Your task to perform on an android device: check google app version Image 0: 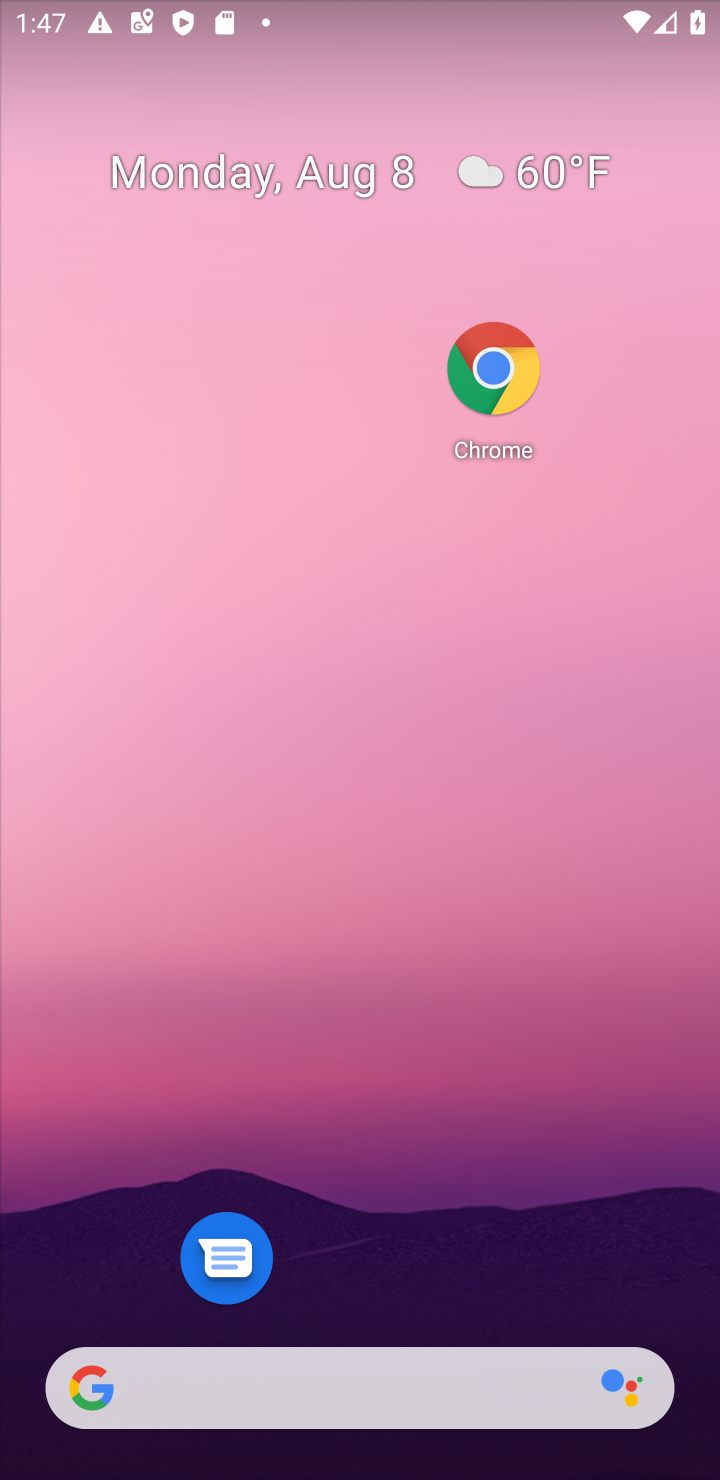
Step 0: drag from (516, 1313) to (432, 0)
Your task to perform on an android device: check google app version Image 1: 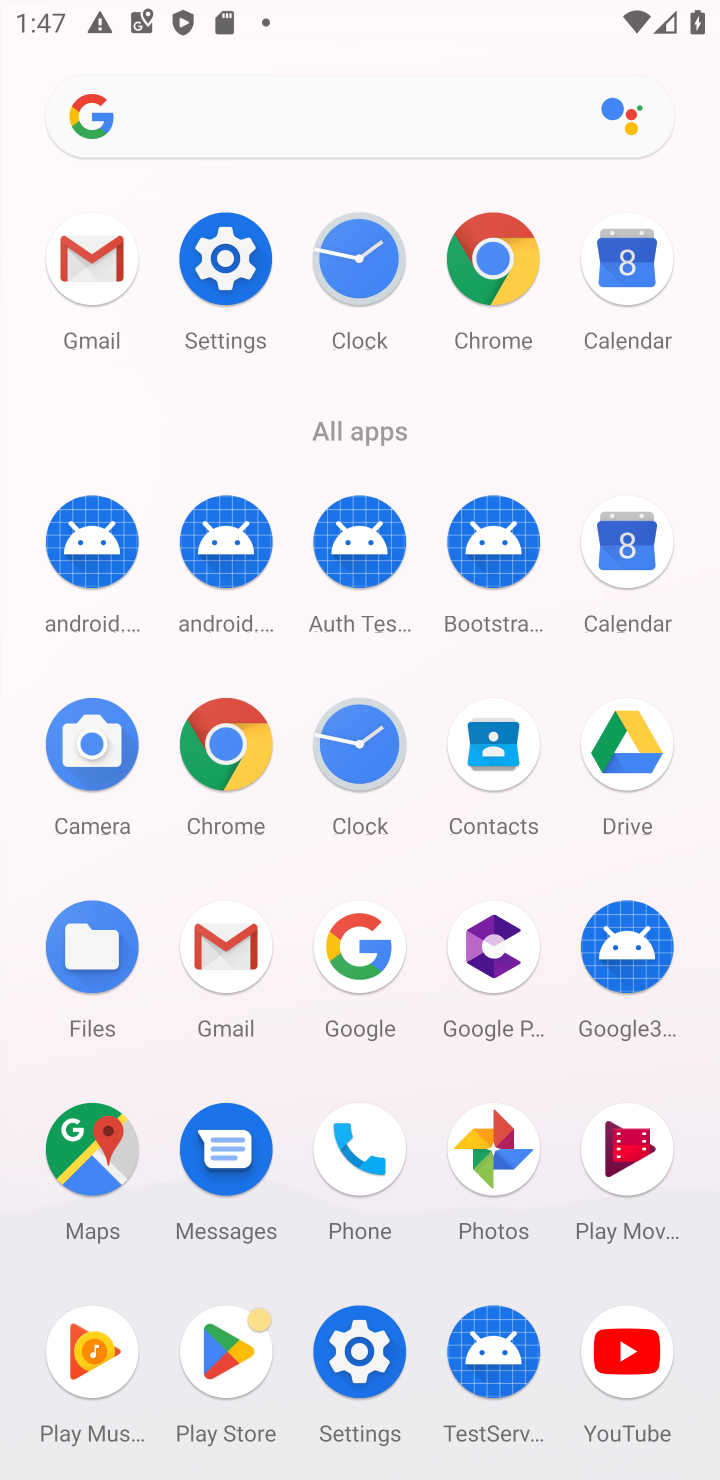
Step 1: click (375, 978)
Your task to perform on an android device: check google app version Image 2: 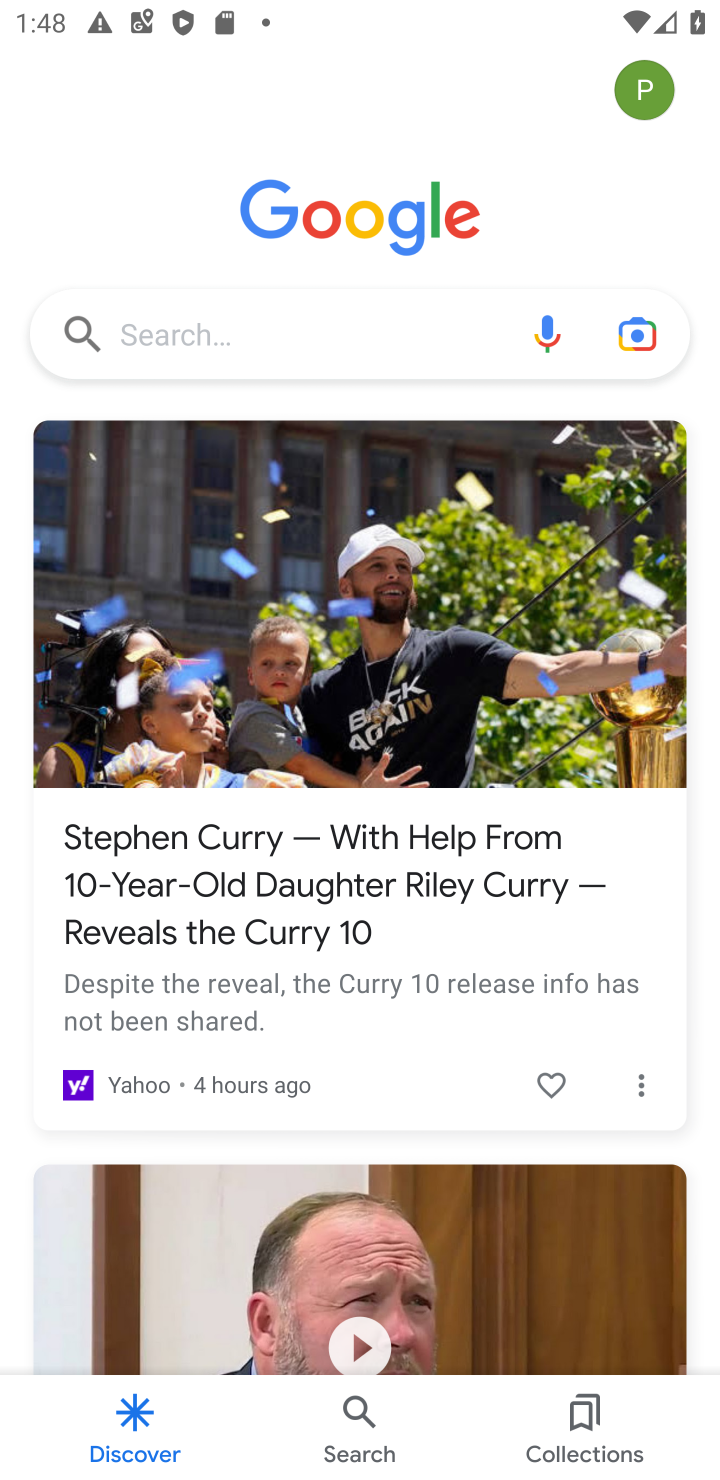
Step 2: click (654, 96)
Your task to perform on an android device: check google app version Image 3: 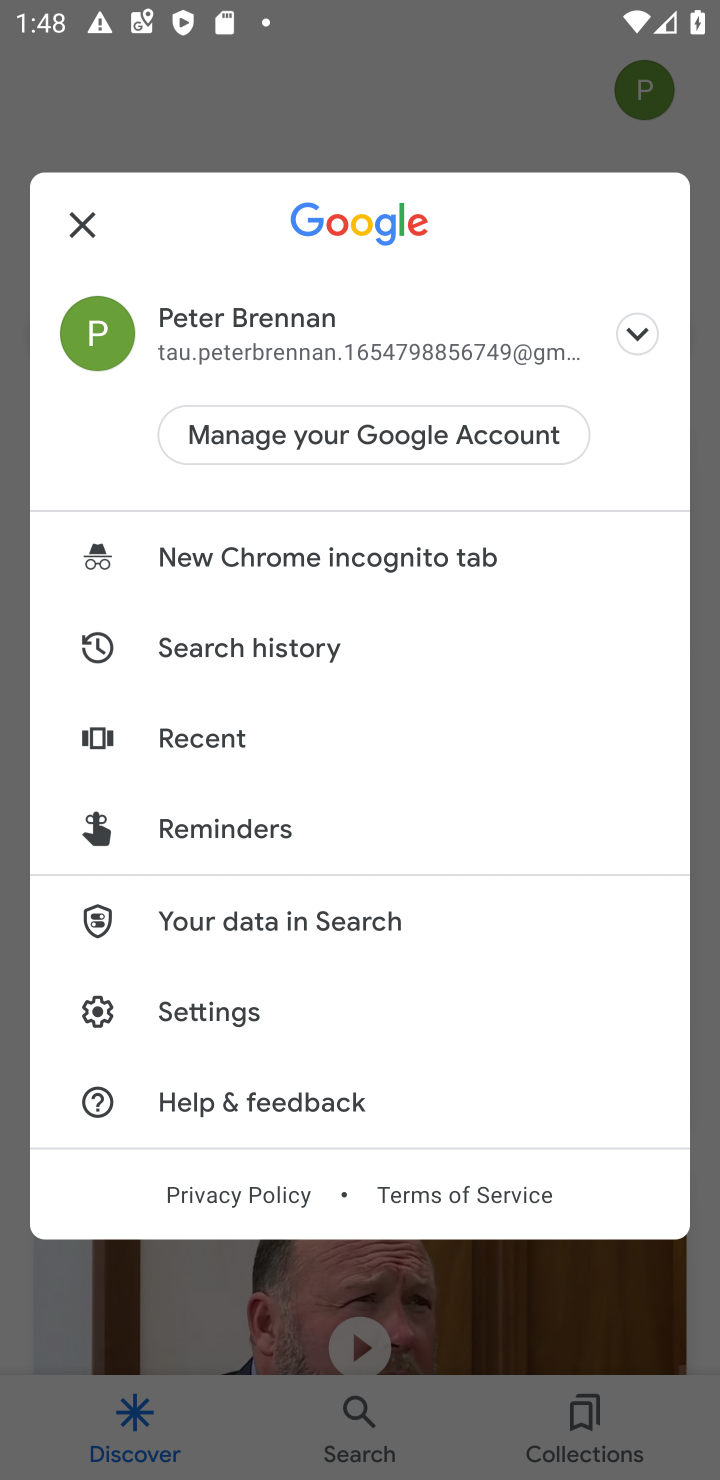
Step 3: click (230, 1020)
Your task to perform on an android device: check google app version Image 4: 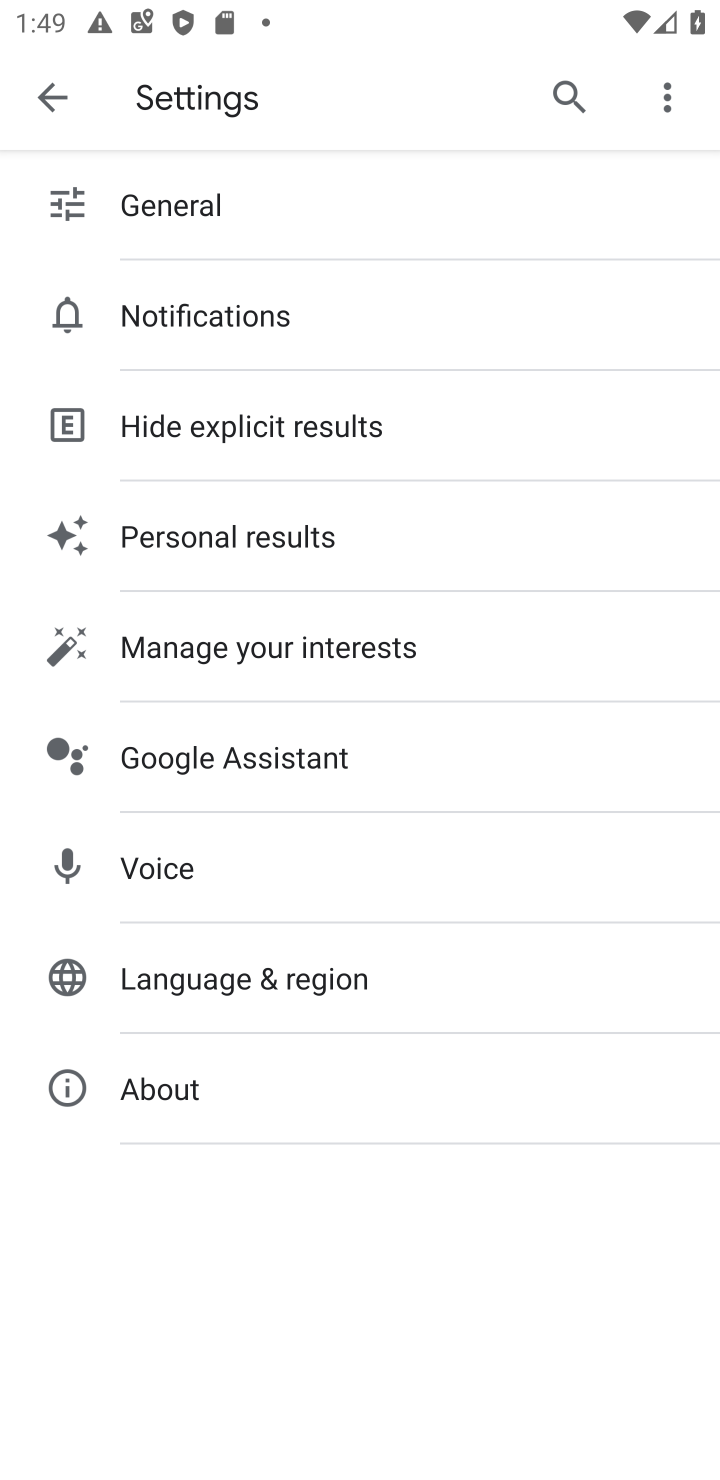
Step 4: click (367, 1082)
Your task to perform on an android device: check google app version Image 5: 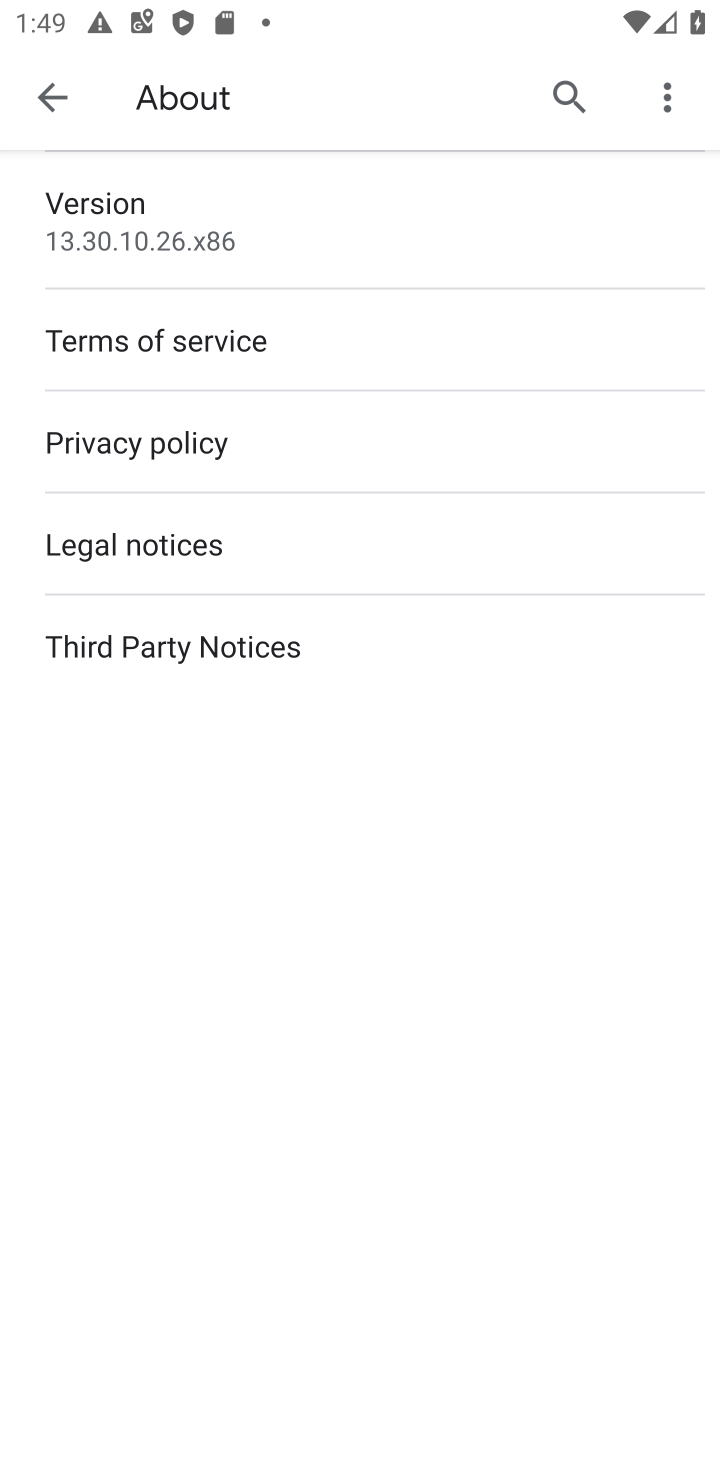
Step 5: task complete